Your task to perform on an android device: change your default location settings in chrome Image 0: 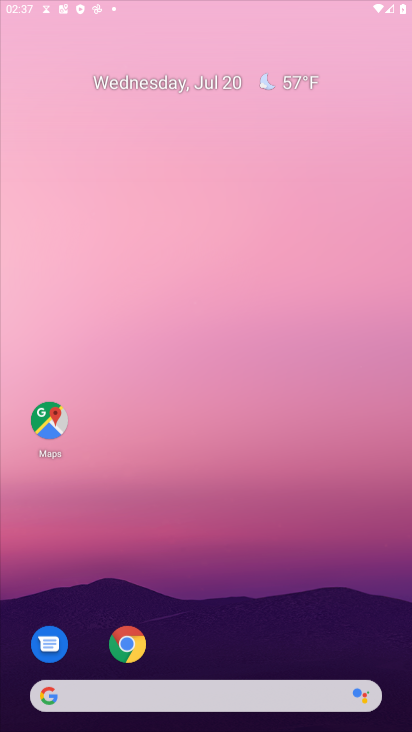
Step 0: press home button
Your task to perform on an android device: change your default location settings in chrome Image 1: 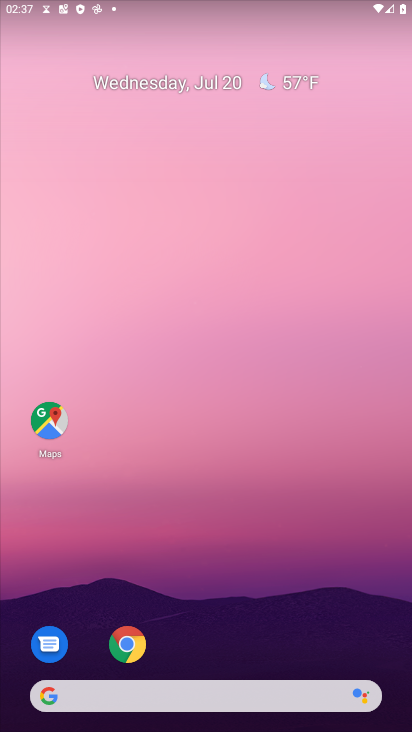
Step 1: press home button
Your task to perform on an android device: change your default location settings in chrome Image 2: 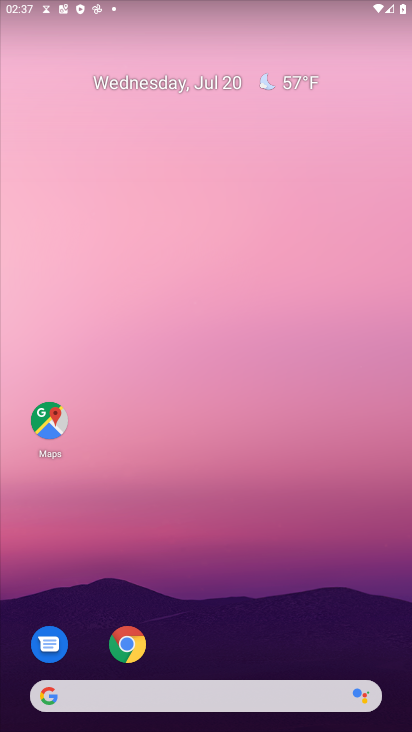
Step 2: drag from (229, 647) to (253, 124)
Your task to perform on an android device: change your default location settings in chrome Image 3: 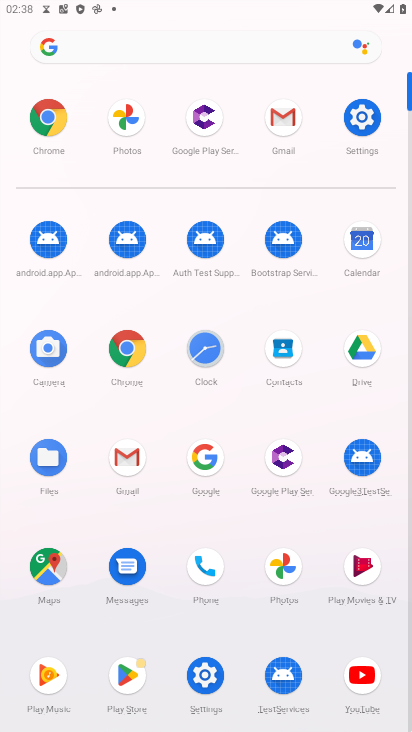
Step 3: click (46, 114)
Your task to perform on an android device: change your default location settings in chrome Image 4: 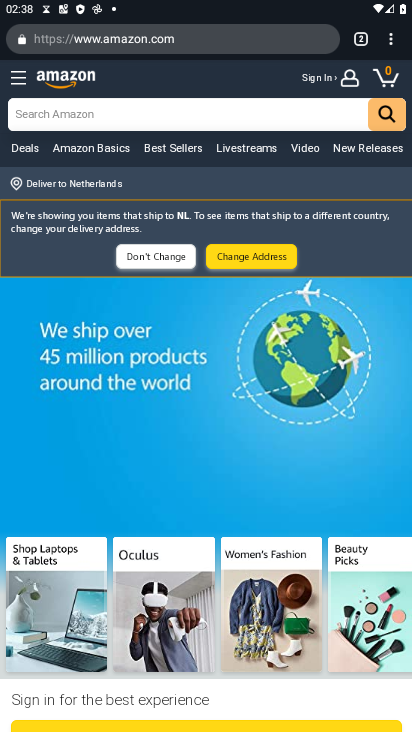
Step 4: drag from (383, 45) to (248, 472)
Your task to perform on an android device: change your default location settings in chrome Image 5: 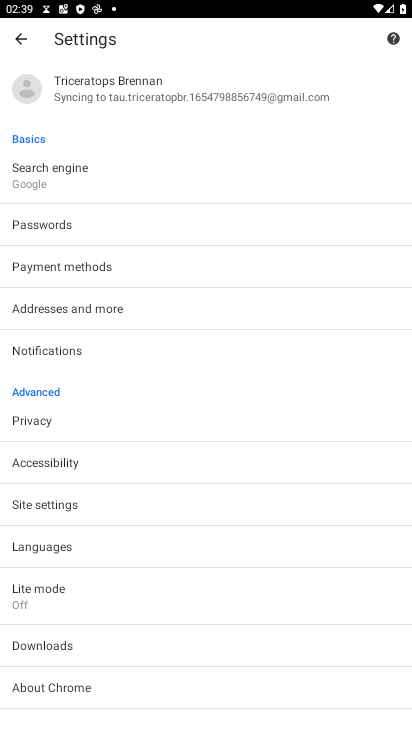
Step 5: click (52, 508)
Your task to perform on an android device: change your default location settings in chrome Image 6: 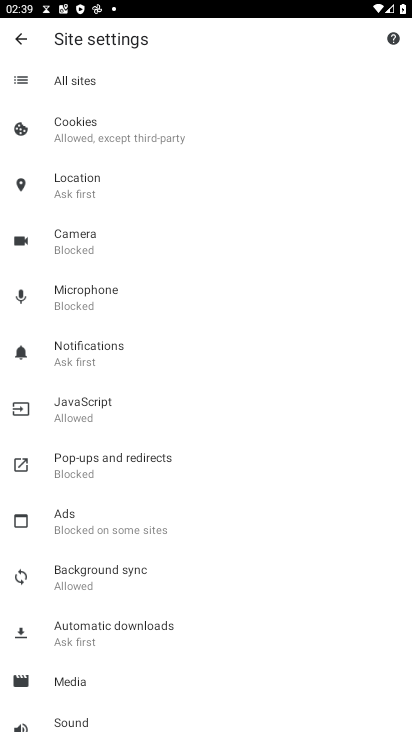
Step 6: click (70, 174)
Your task to perform on an android device: change your default location settings in chrome Image 7: 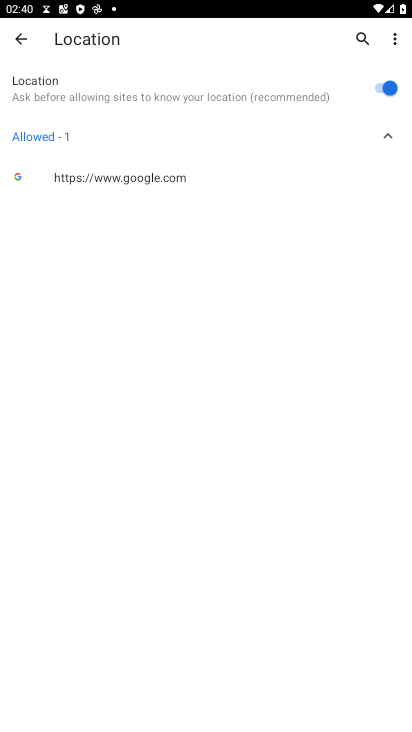
Step 7: click (395, 84)
Your task to perform on an android device: change your default location settings in chrome Image 8: 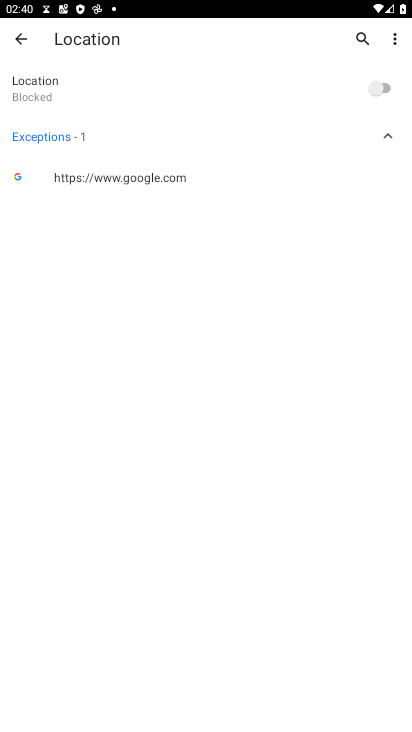
Step 8: task complete